Your task to perform on an android device: install app "Microsoft Outlook" Image 0: 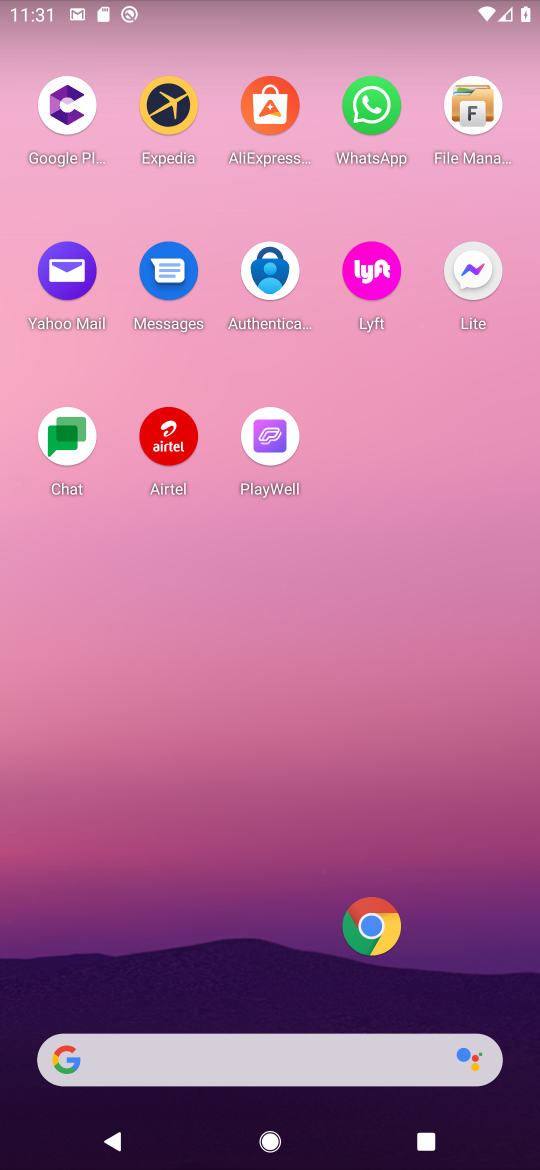
Step 0: drag from (268, 787) to (406, 15)
Your task to perform on an android device: install app "Microsoft Outlook" Image 1: 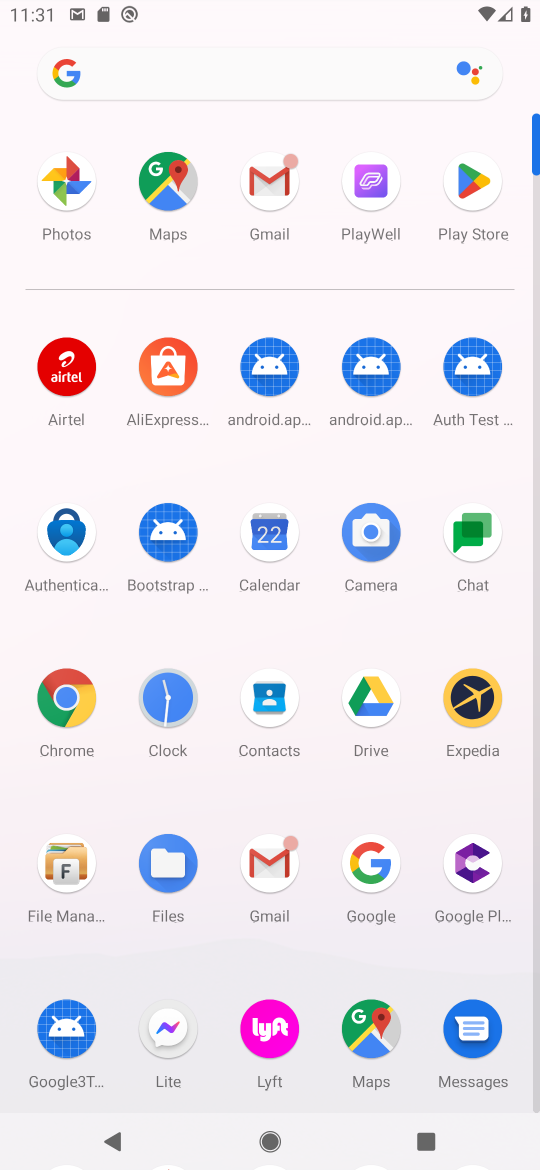
Step 1: click (460, 197)
Your task to perform on an android device: install app "Microsoft Outlook" Image 2: 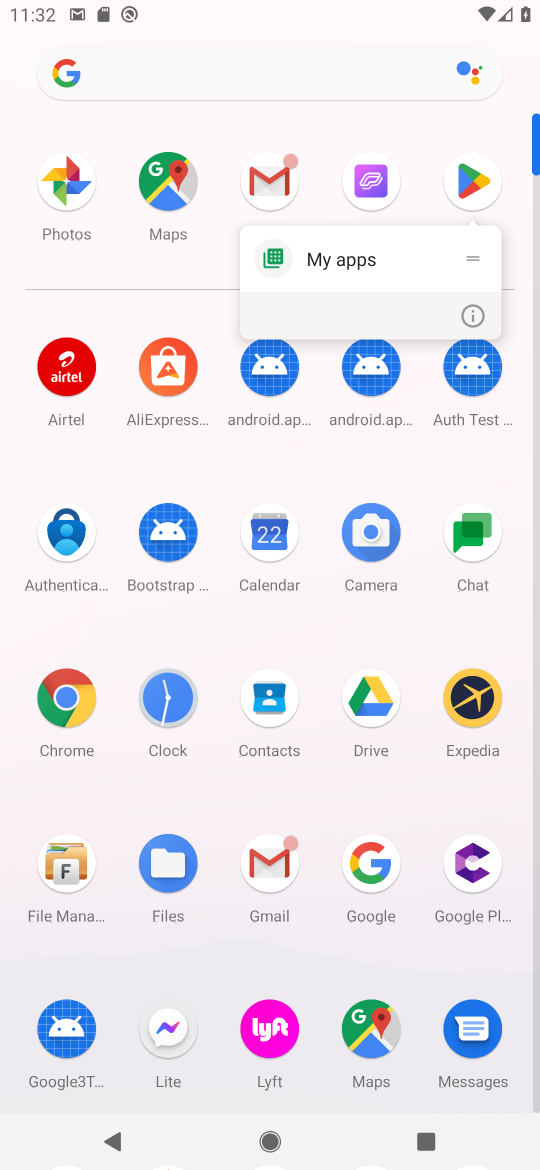
Step 2: click (458, 207)
Your task to perform on an android device: install app "Microsoft Outlook" Image 3: 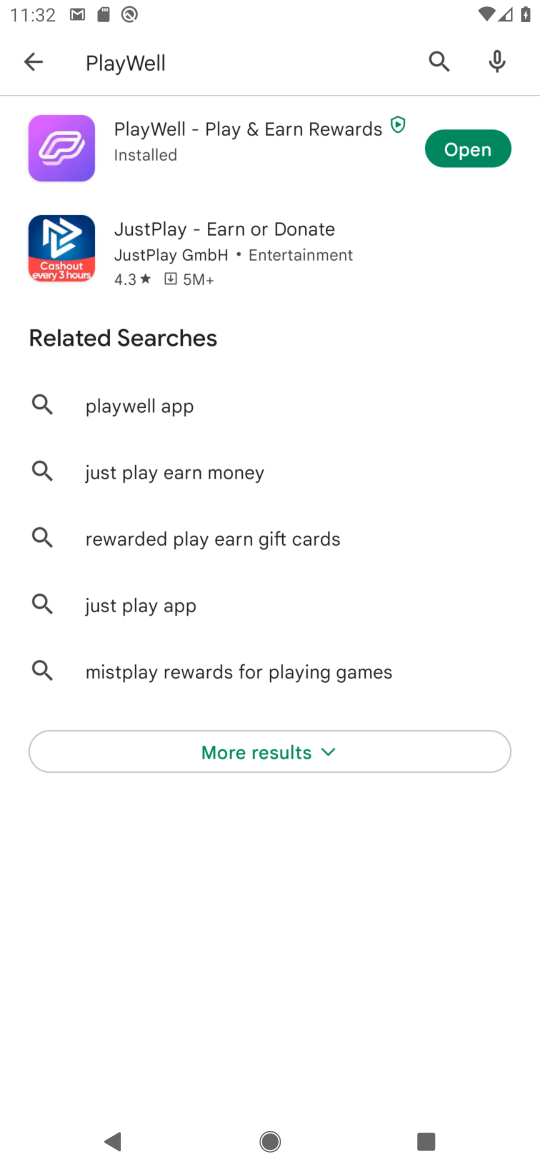
Step 3: click (476, 193)
Your task to perform on an android device: install app "Microsoft Outlook" Image 4: 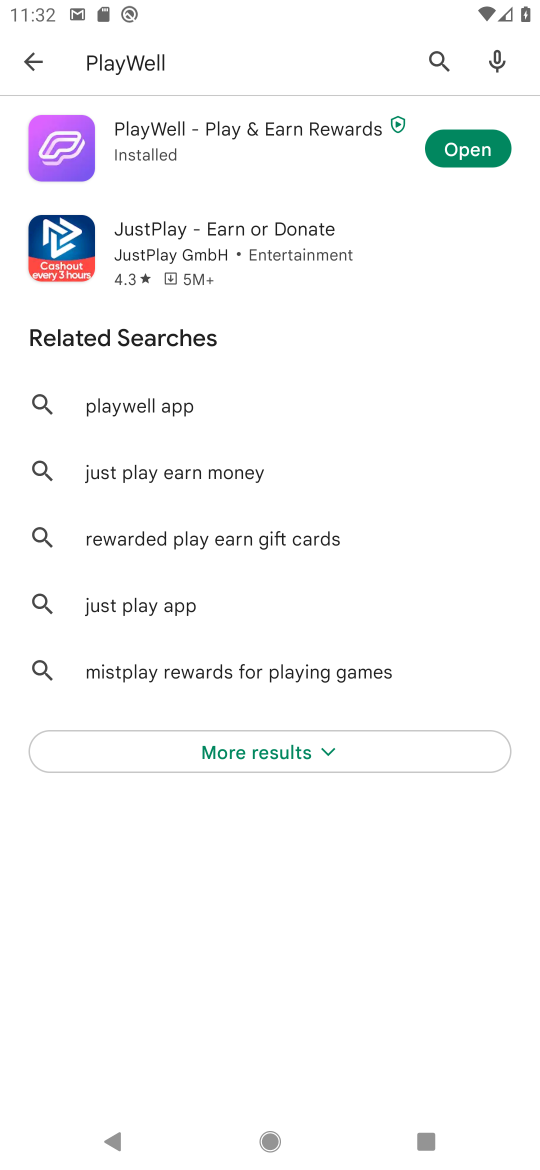
Step 4: press back button
Your task to perform on an android device: install app "Microsoft Outlook" Image 5: 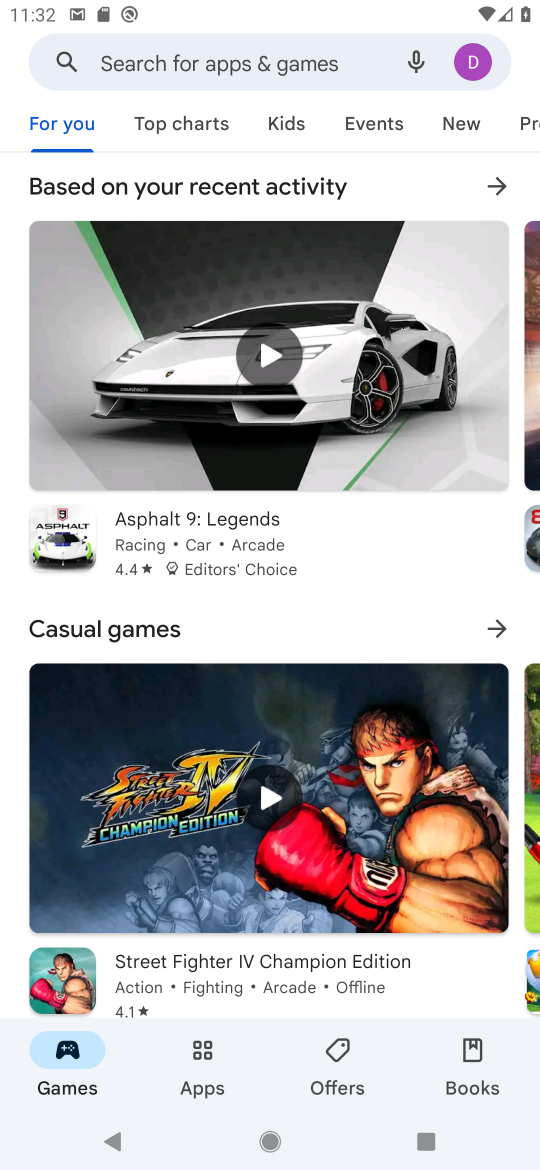
Step 5: click (175, 72)
Your task to perform on an android device: install app "Microsoft Outlook" Image 6: 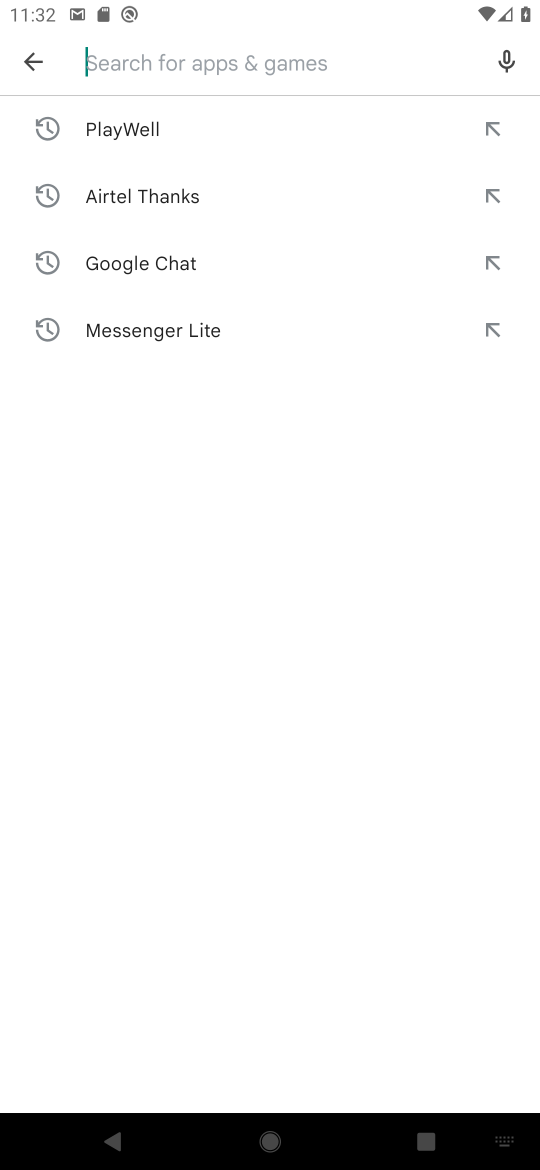
Step 6: type "Microsoft Outlook"
Your task to perform on an android device: install app "Microsoft Outlook" Image 7: 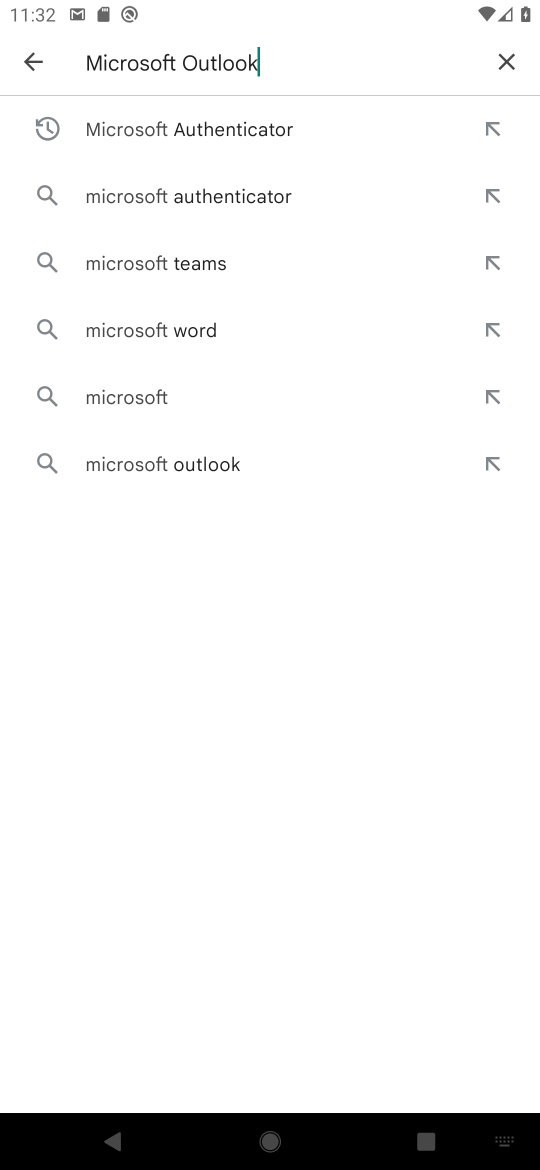
Step 7: press enter
Your task to perform on an android device: install app "Microsoft Outlook" Image 8: 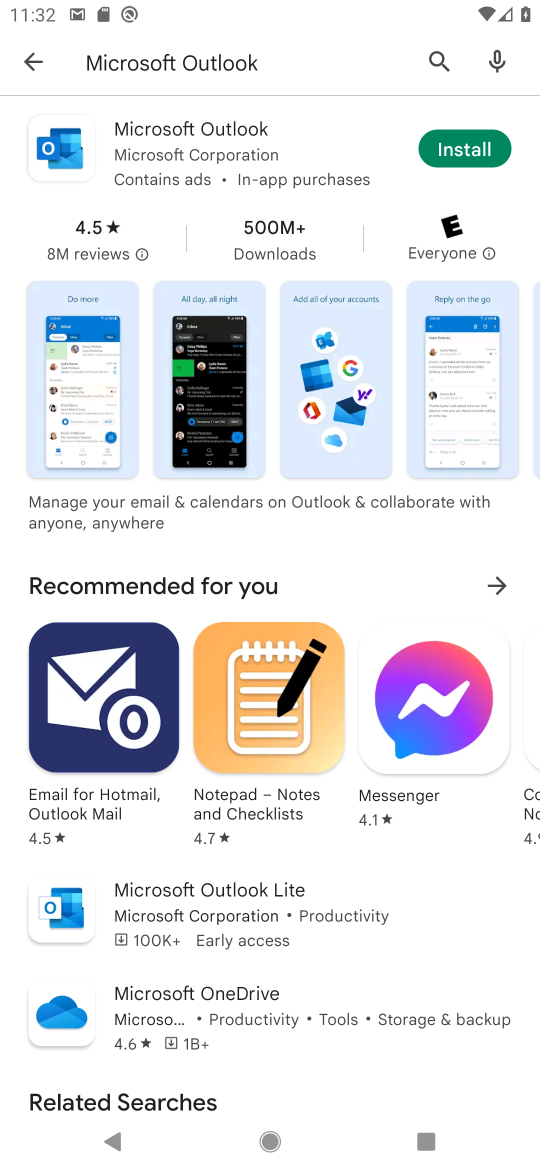
Step 8: click (471, 142)
Your task to perform on an android device: install app "Microsoft Outlook" Image 9: 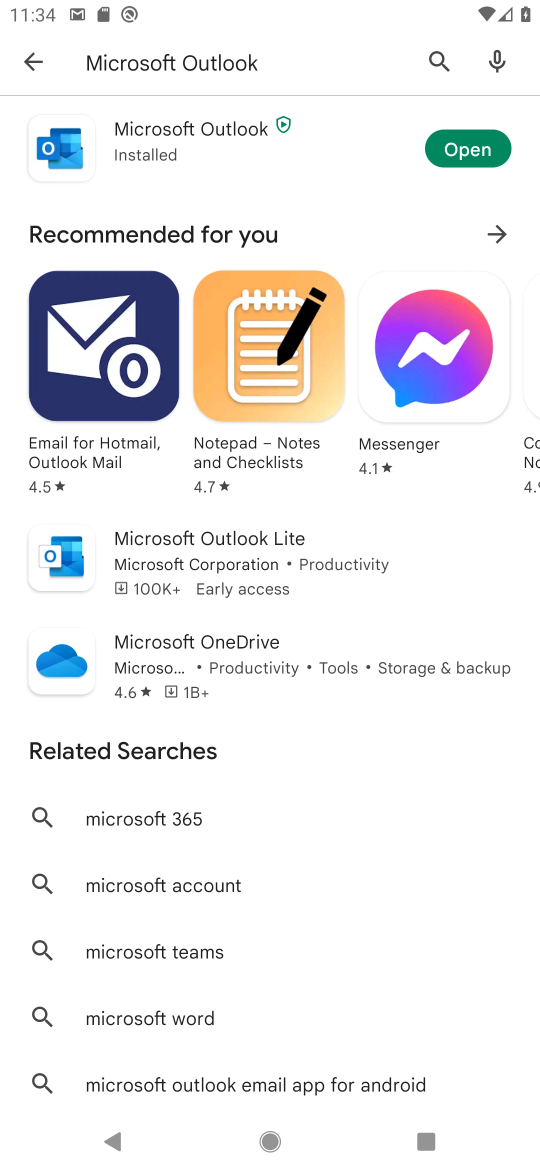
Step 9: task complete